Your task to perform on an android device: turn off priority inbox in the gmail app Image 0: 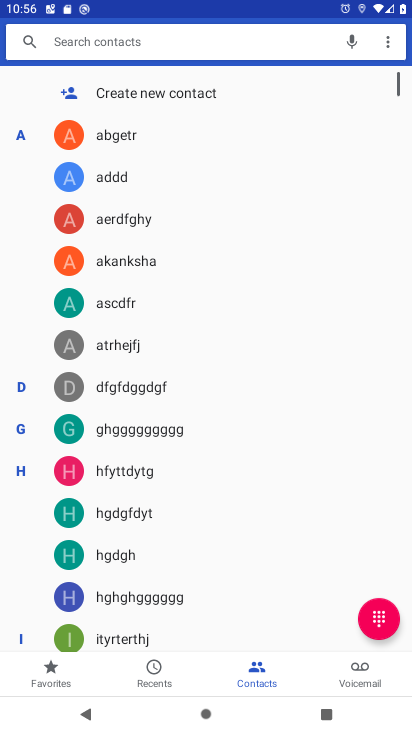
Step 0: press home button
Your task to perform on an android device: turn off priority inbox in the gmail app Image 1: 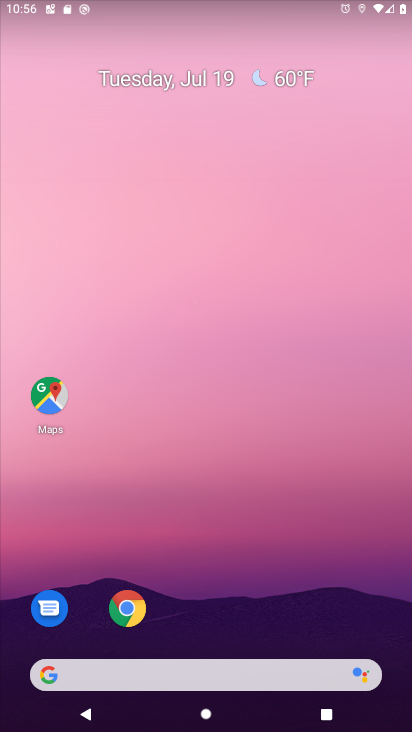
Step 1: drag from (192, 635) to (184, 10)
Your task to perform on an android device: turn off priority inbox in the gmail app Image 2: 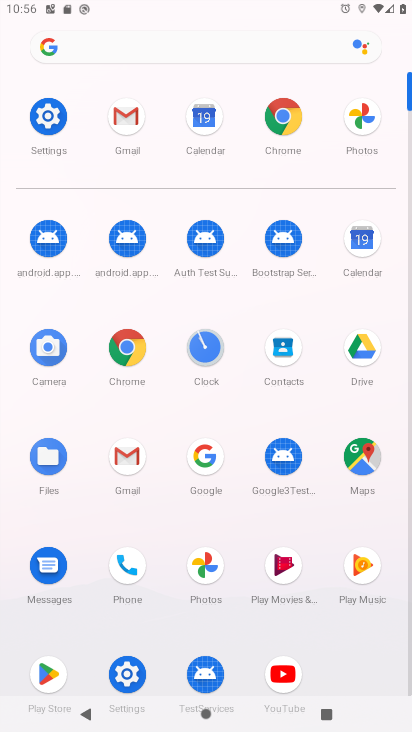
Step 2: click (130, 458)
Your task to perform on an android device: turn off priority inbox in the gmail app Image 3: 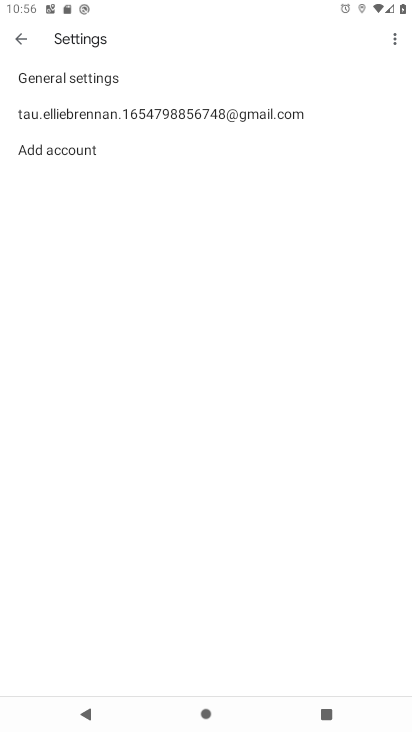
Step 3: click (107, 123)
Your task to perform on an android device: turn off priority inbox in the gmail app Image 4: 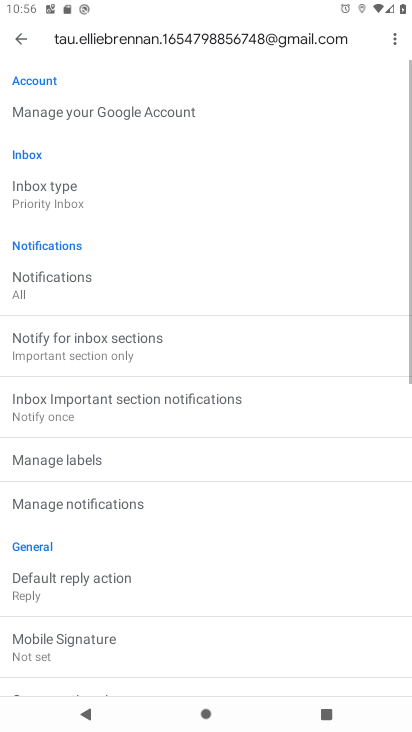
Step 4: click (48, 188)
Your task to perform on an android device: turn off priority inbox in the gmail app Image 5: 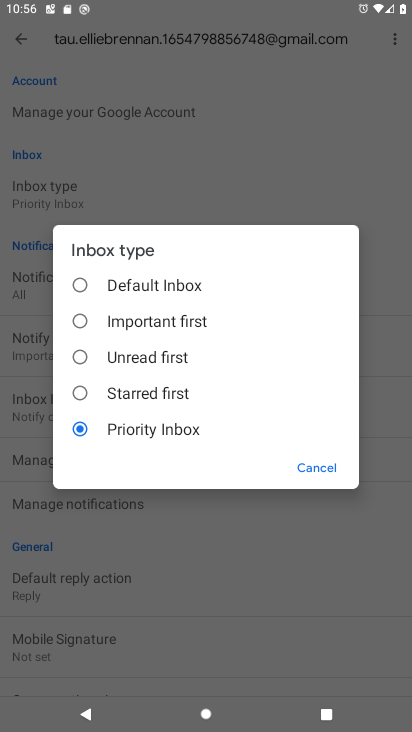
Step 5: click (78, 282)
Your task to perform on an android device: turn off priority inbox in the gmail app Image 6: 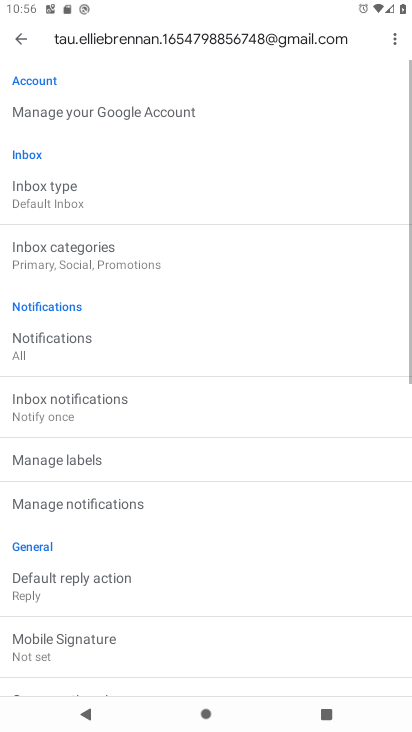
Step 6: task complete